Your task to perform on an android device: Is it going to rain tomorrow? Image 0: 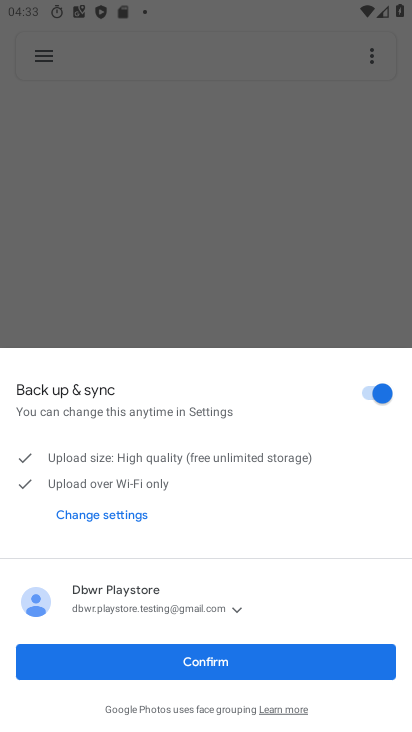
Step 0: press home button
Your task to perform on an android device: Is it going to rain tomorrow? Image 1: 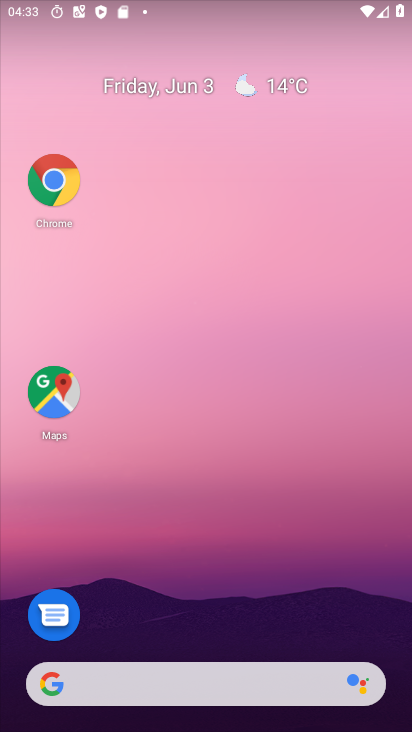
Step 1: click (171, 696)
Your task to perform on an android device: Is it going to rain tomorrow? Image 2: 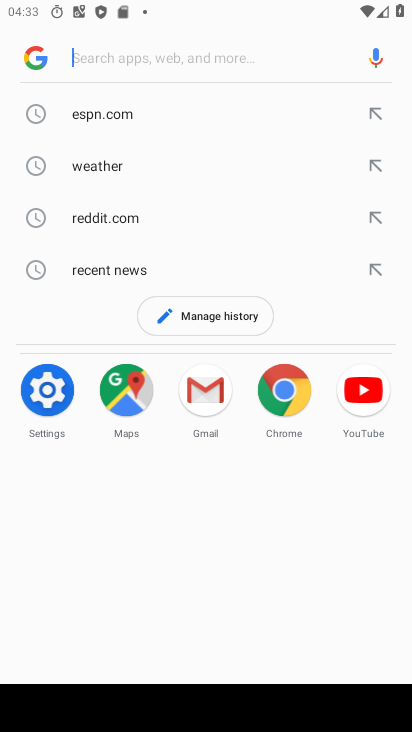
Step 2: type "Is it going to rain tomorrow?"
Your task to perform on an android device: Is it going to rain tomorrow? Image 3: 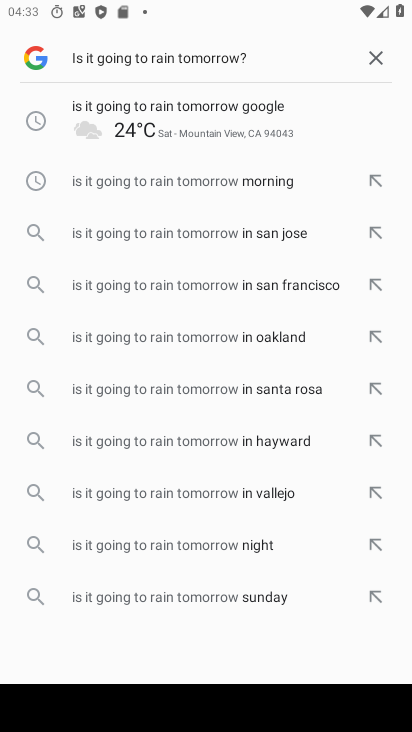
Step 3: click (221, 58)
Your task to perform on an android device: Is it going to rain tomorrow? Image 4: 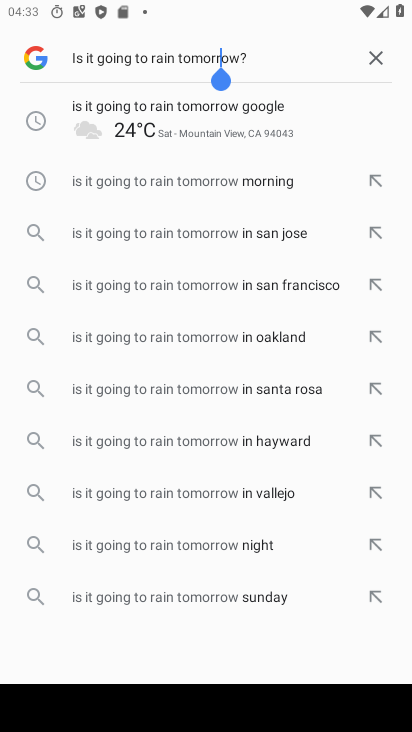
Step 4: click (246, 119)
Your task to perform on an android device: Is it going to rain tomorrow? Image 5: 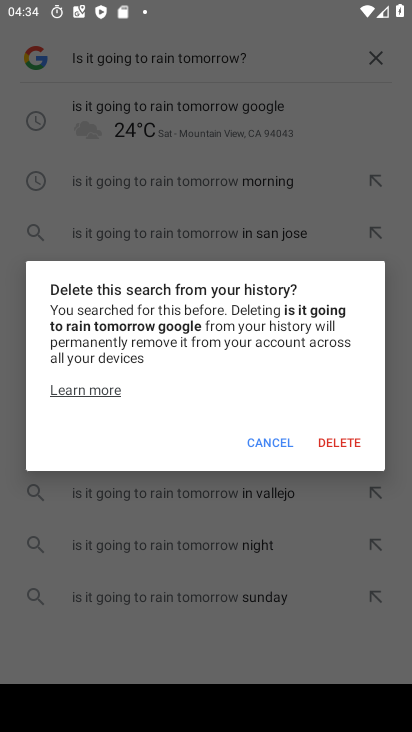
Step 5: click (274, 446)
Your task to perform on an android device: Is it going to rain tomorrow? Image 6: 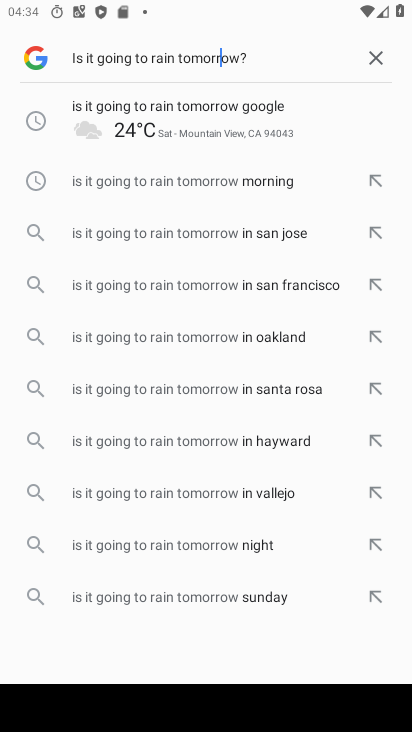
Step 6: click (202, 127)
Your task to perform on an android device: Is it going to rain tomorrow? Image 7: 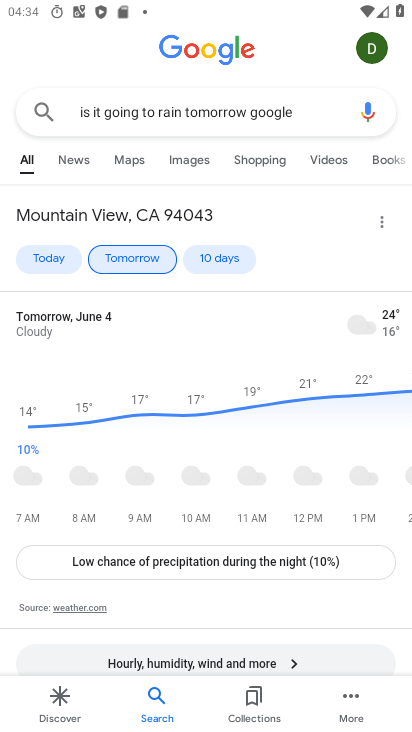
Step 7: task complete